Your task to perform on an android device: open chrome privacy settings Image 0: 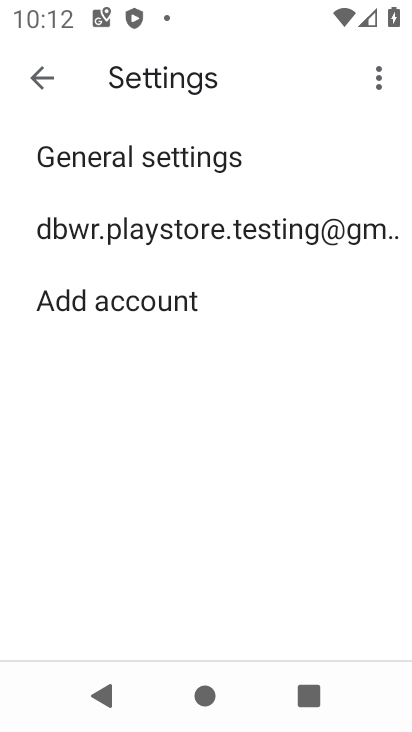
Step 0: press home button
Your task to perform on an android device: open chrome privacy settings Image 1: 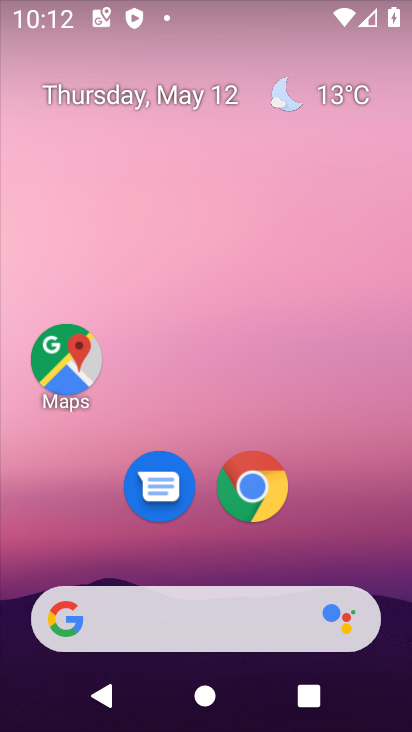
Step 1: click (270, 485)
Your task to perform on an android device: open chrome privacy settings Image 2: 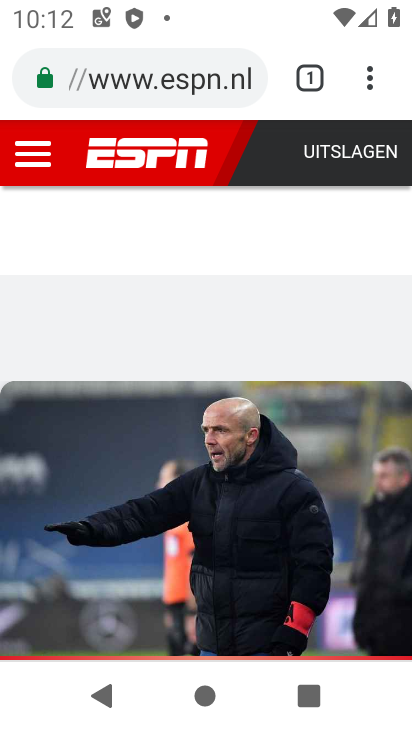
Step 2: click (372, 82)
Your task to perform on an android device: open chrome privacy settings Image 3: 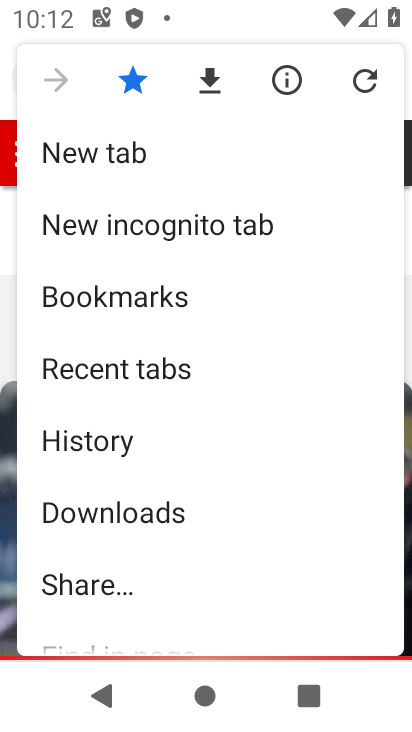
Step 3: drag from (281, 576) to (210, 309)
Your task to perform on an android device: open chrome privacy settings Image 4: 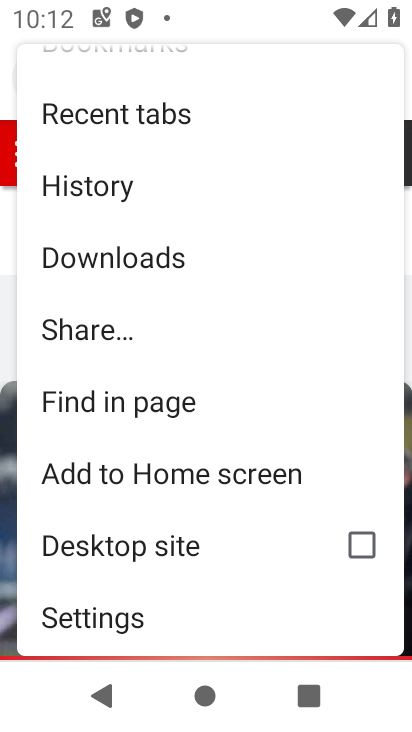
Step 4: click (120, 617)
Your task to perform on an android device: open chrome privacy settings Image 5: 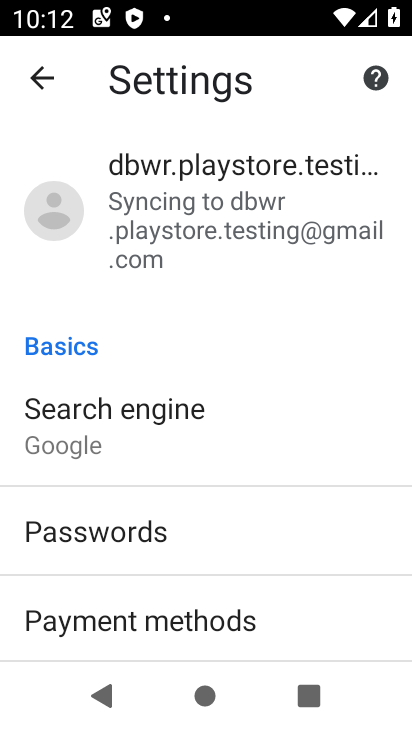
Step 5: drag from (307, 595) to (252, 318)
Your task to perform on an android device: open chrome privacy settings Image 6: 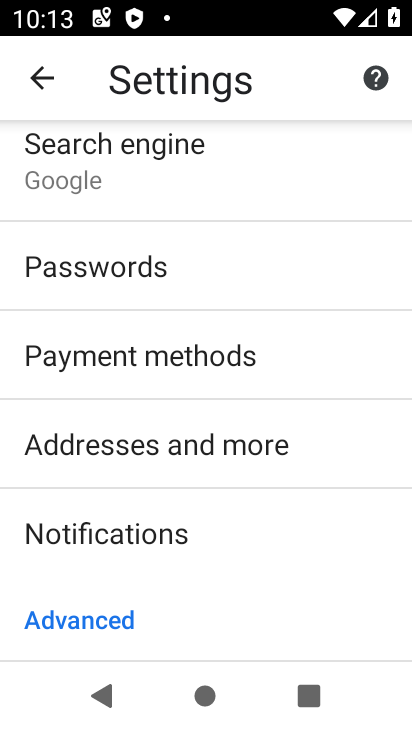
Step 6: drag from (306, 503) to (245, 309)
Your task to perform on an android device: open chrome privacy settings Image 7: 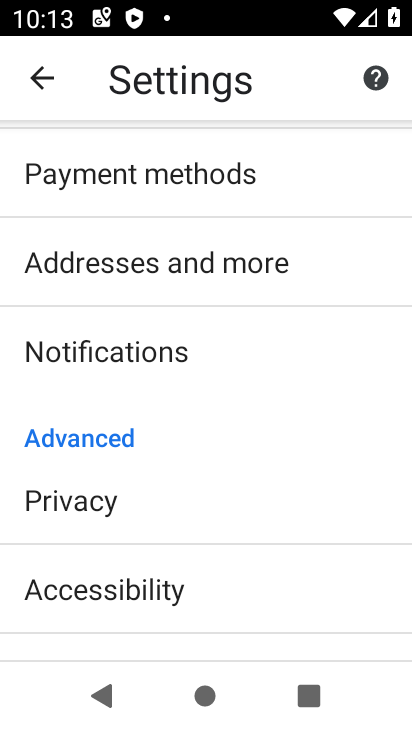
Step 7: click (189, 498)
Your task to perform on an android device: open chrome privacy settings Image 8: 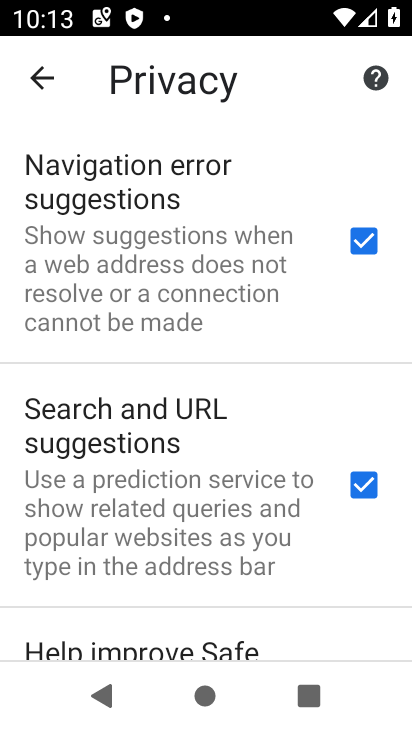
Step 8: task complete